Your task to perform on an android device: turn off notifications settings in the gmail app Image 0: 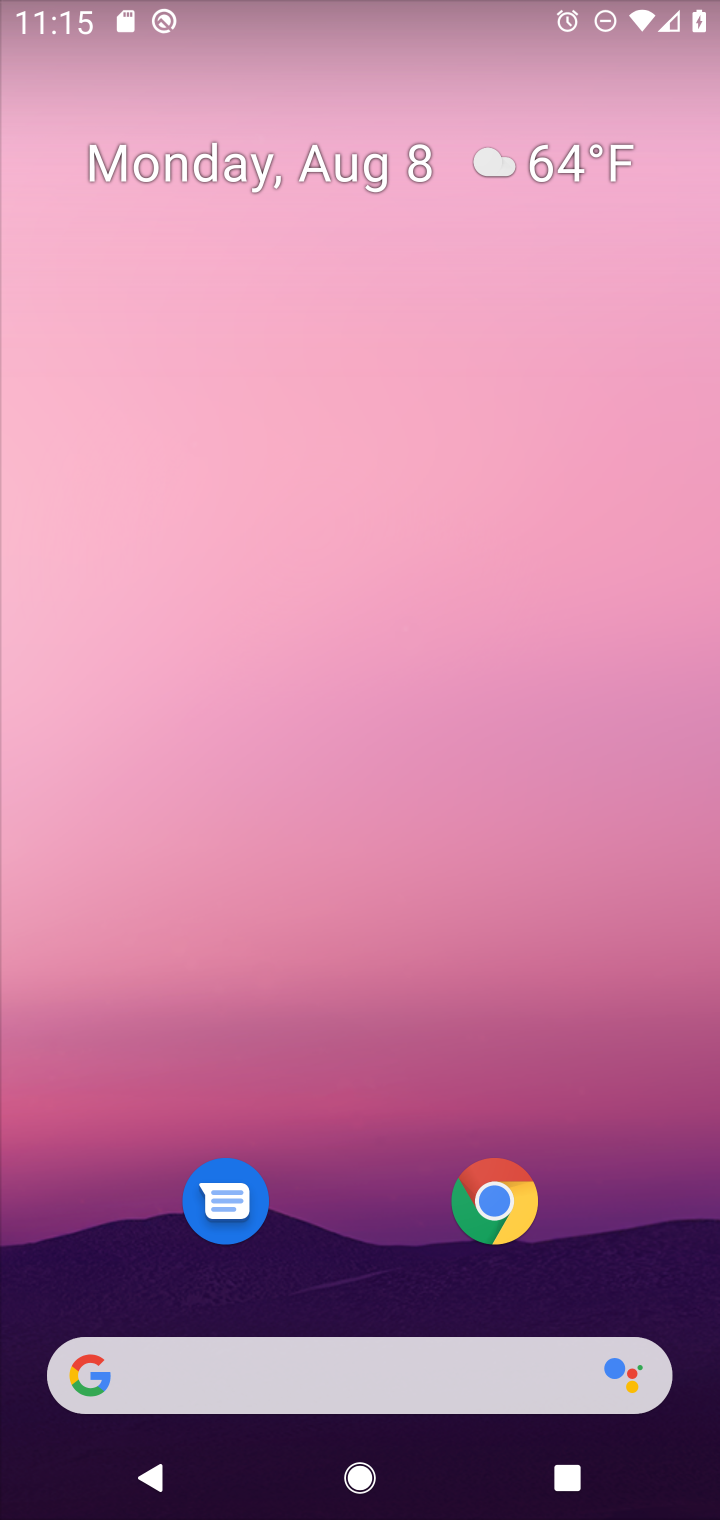
Step 0: press home button
Your task to perform on an android device: turn off notifications settings in the gmail app Image 1: 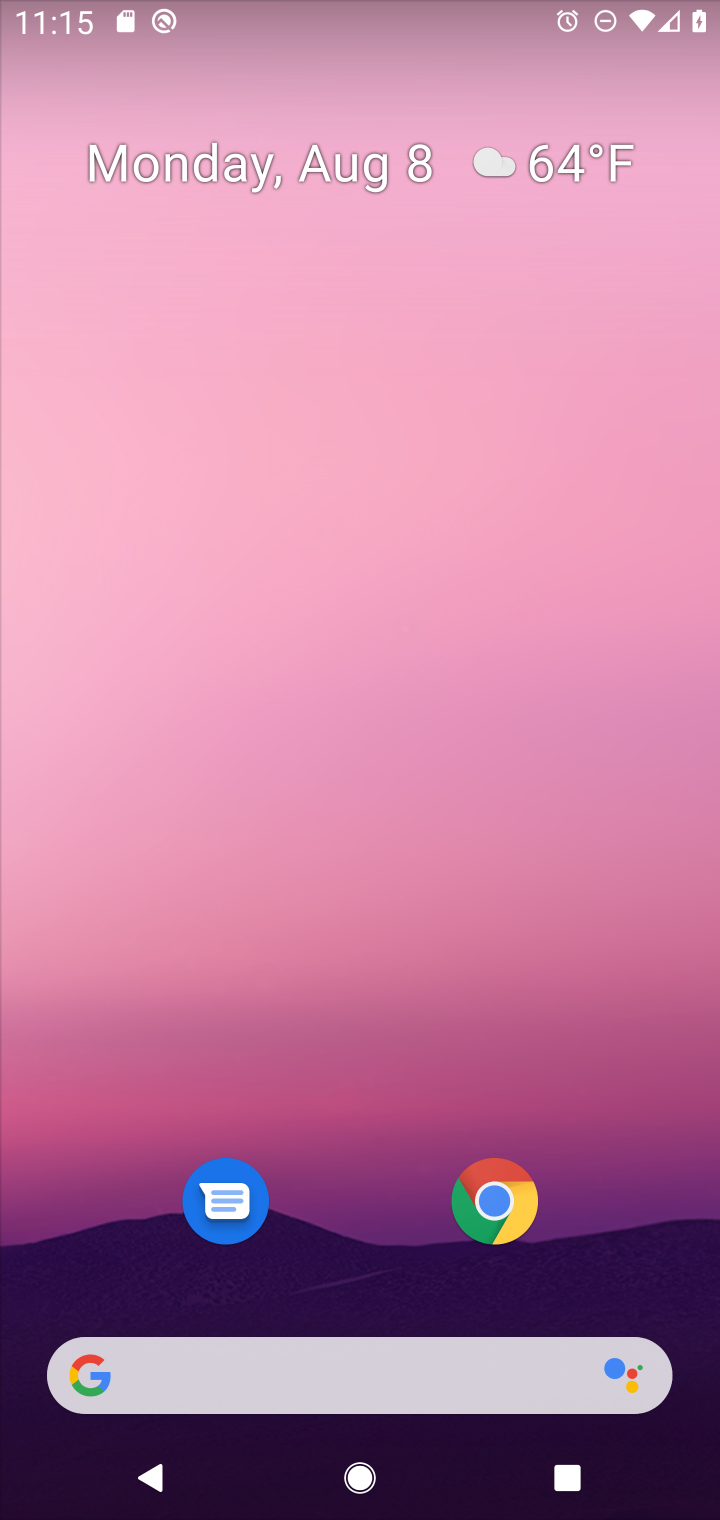
Step 1: drag from (601, 1212) to (598, 235)
Your task to perform on an android device: turn off notifications settings in the gmail app Image 2: 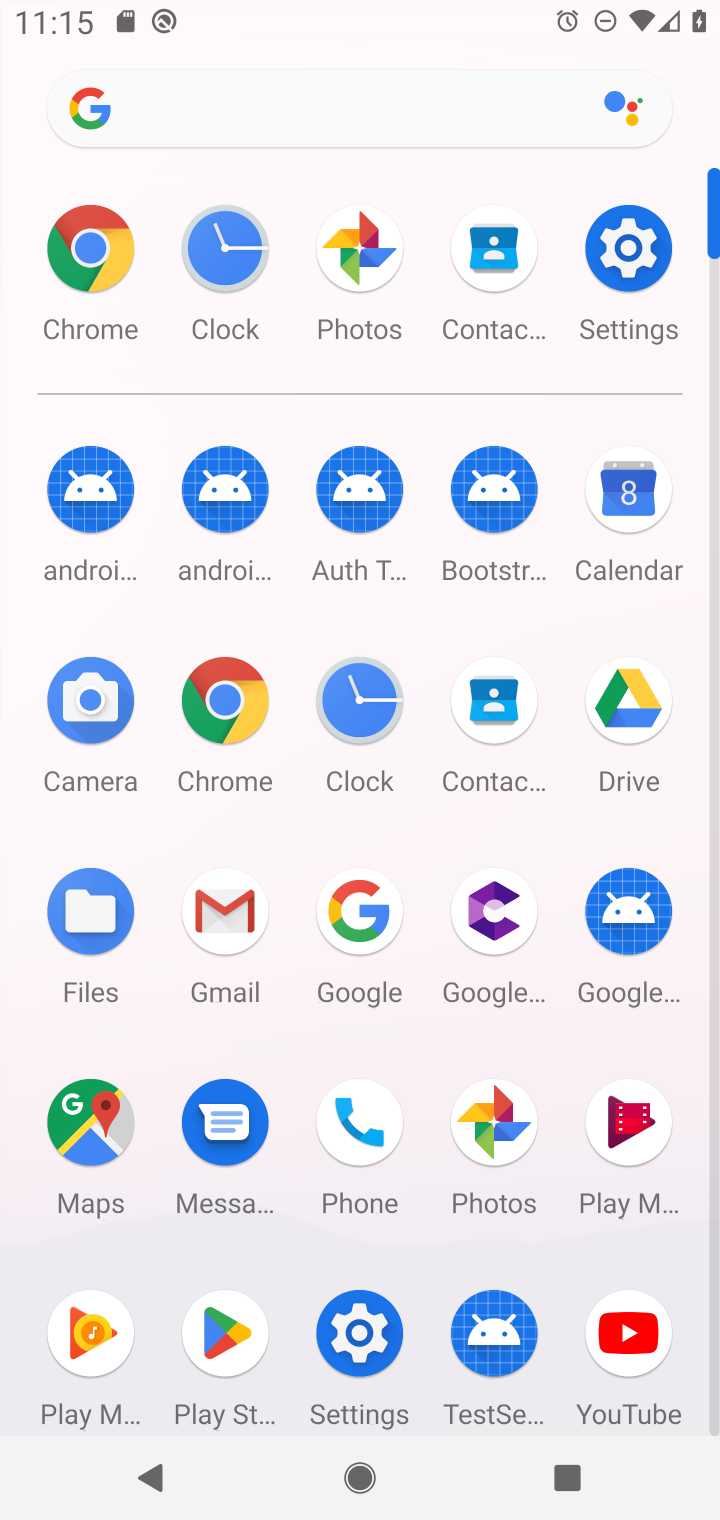
Step 2: click (230, 920)
Your task to perform on an android device: turn off notifications settings in the gmail app Image 3: 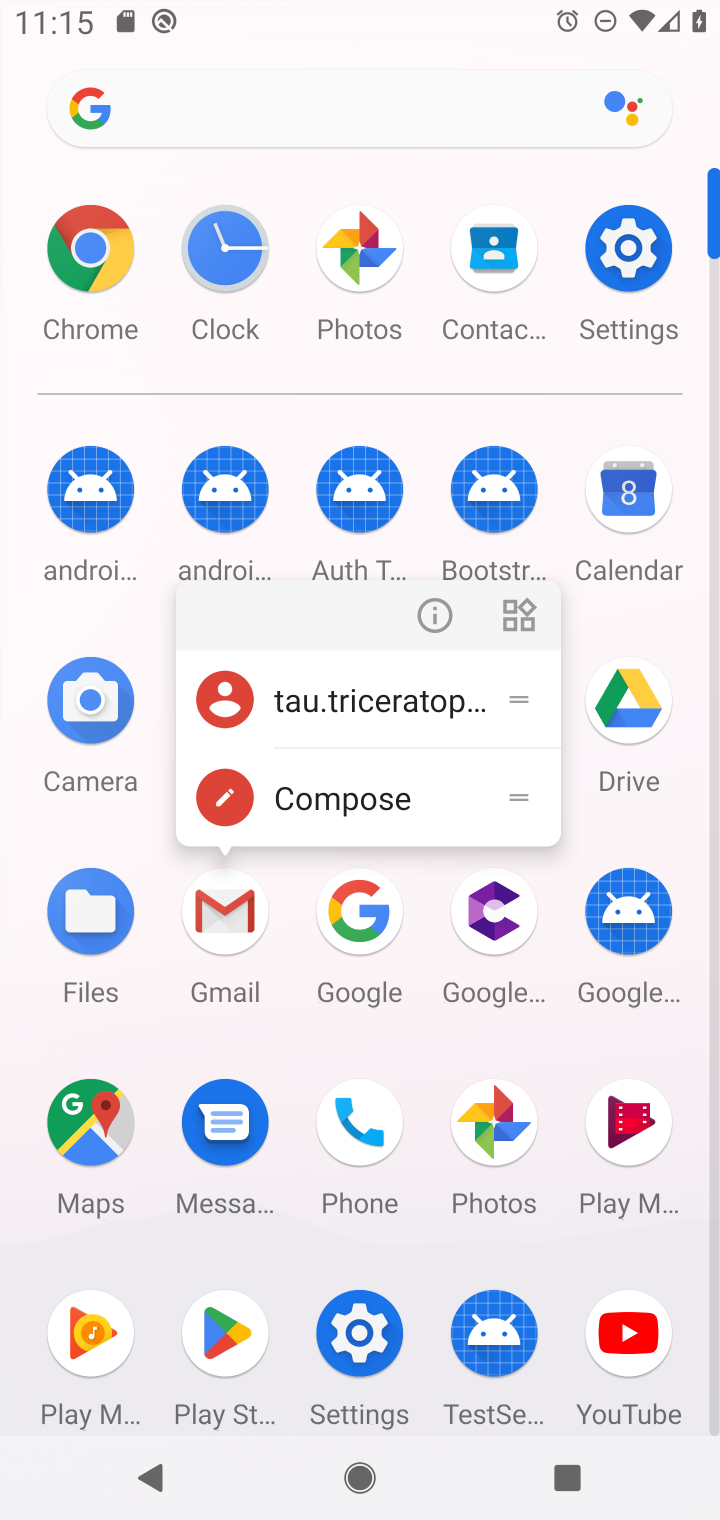
Step 3: click (208, 910)
Your task to perform on an android device: turn off notifications settings in the gmail app Image 4: 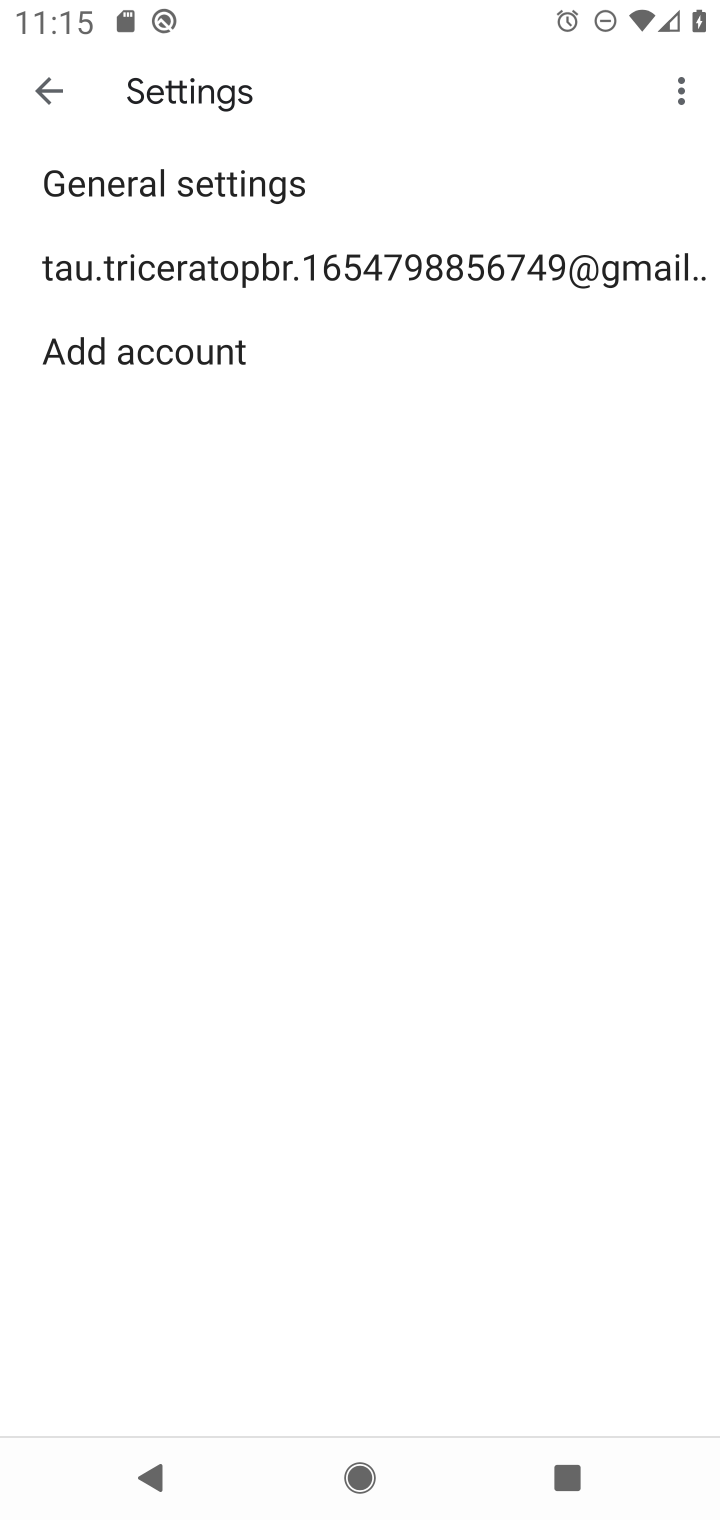
Step 4: click (367, 266)
Your task to perform on an android device: turn off notifications settings in the gmail app Image 5: 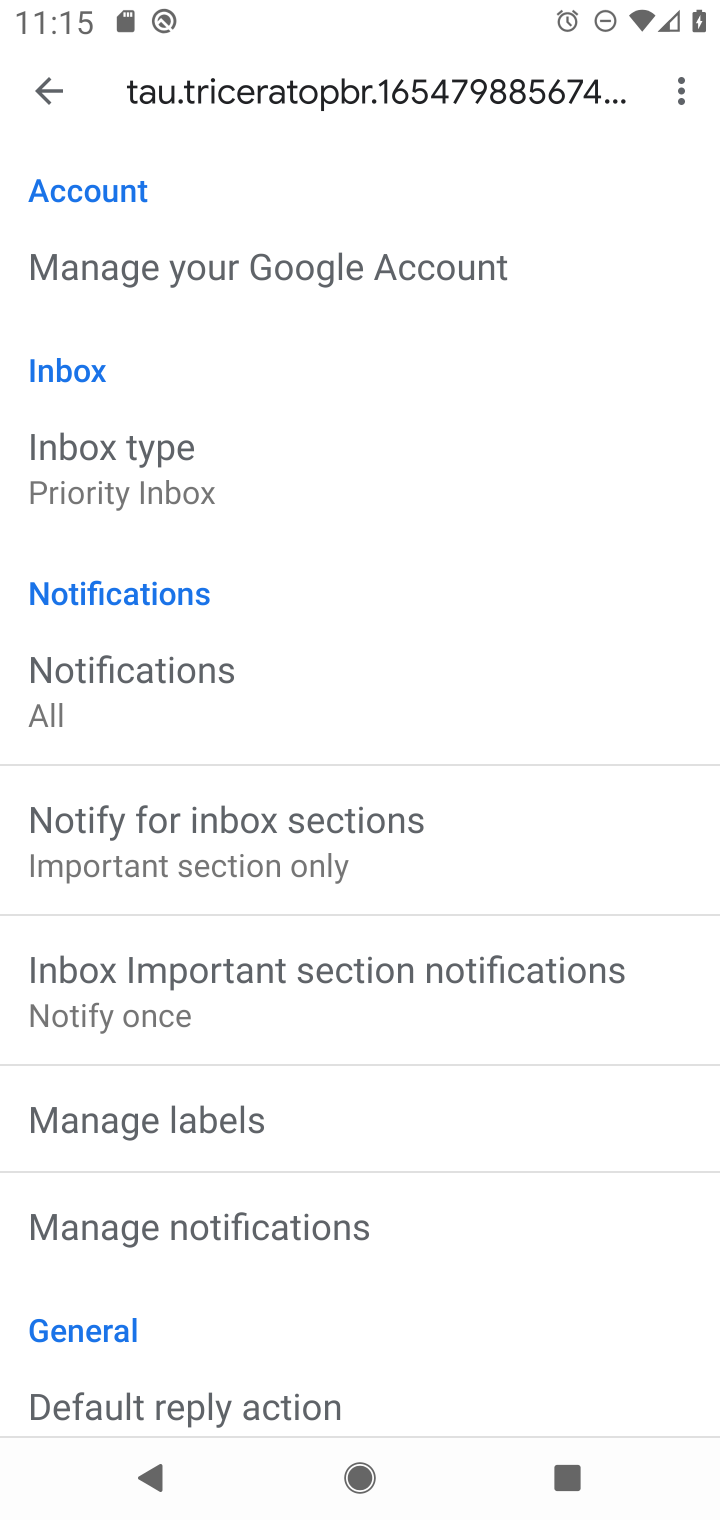
Step 5: drag from (614, 787) to (608, 522)
Your task to perform on an android device: turn off notifications settings in the gmail app Image 6: 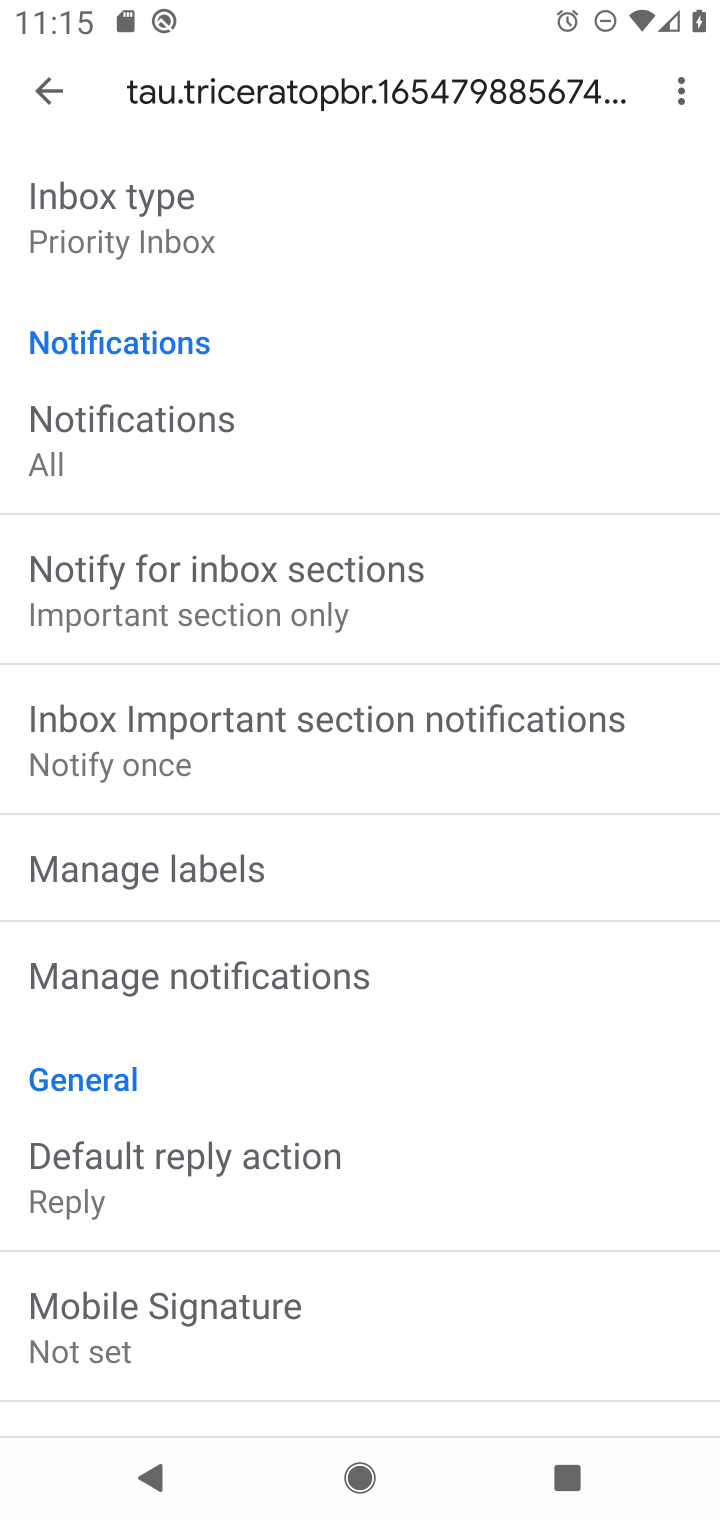
Step 6: drag from (613, 853) to (615, 473)
Your task to perform on an android device: turn off notifications settings in the gmail app Image 7: 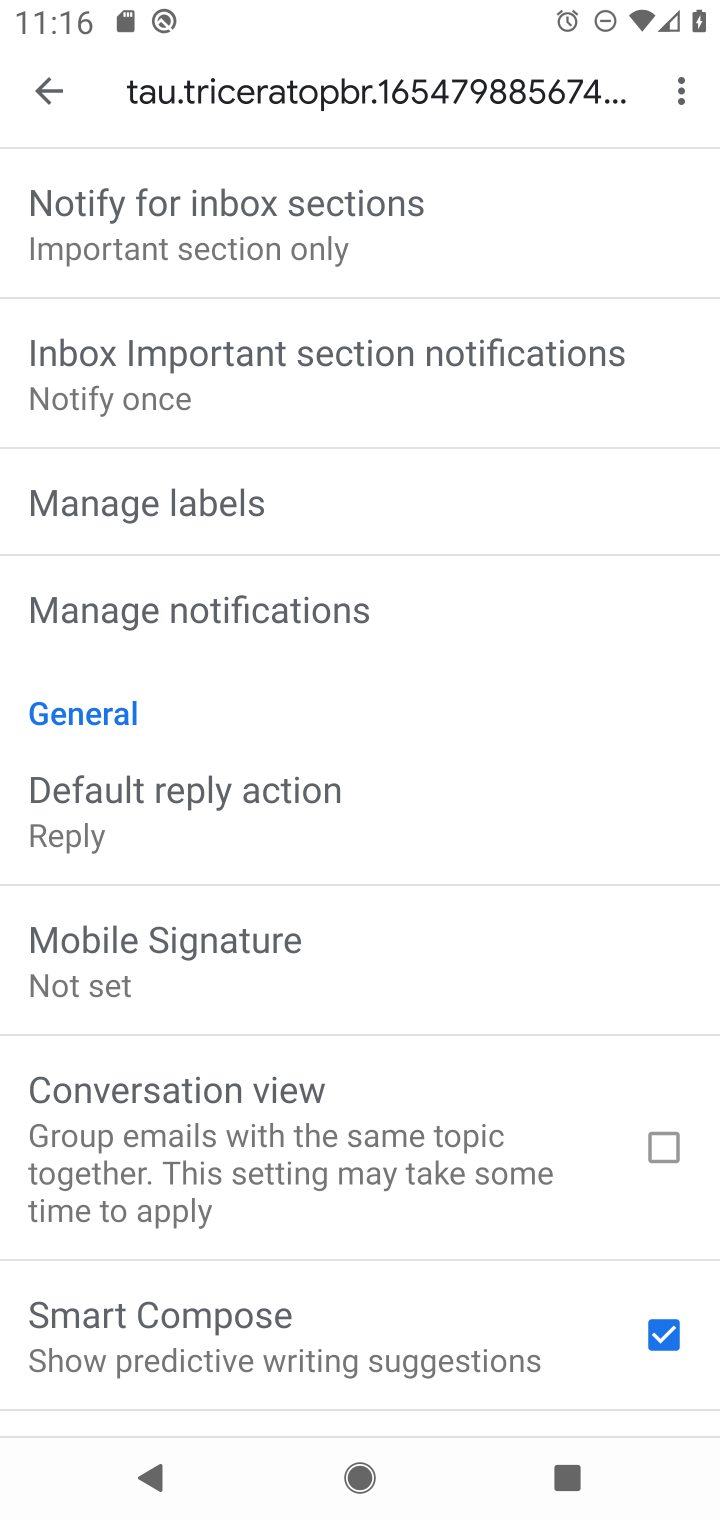
Step 7: click (374, 610)
Your task to perform on an android device: turn off notifications settings in the gmail app Image 8: 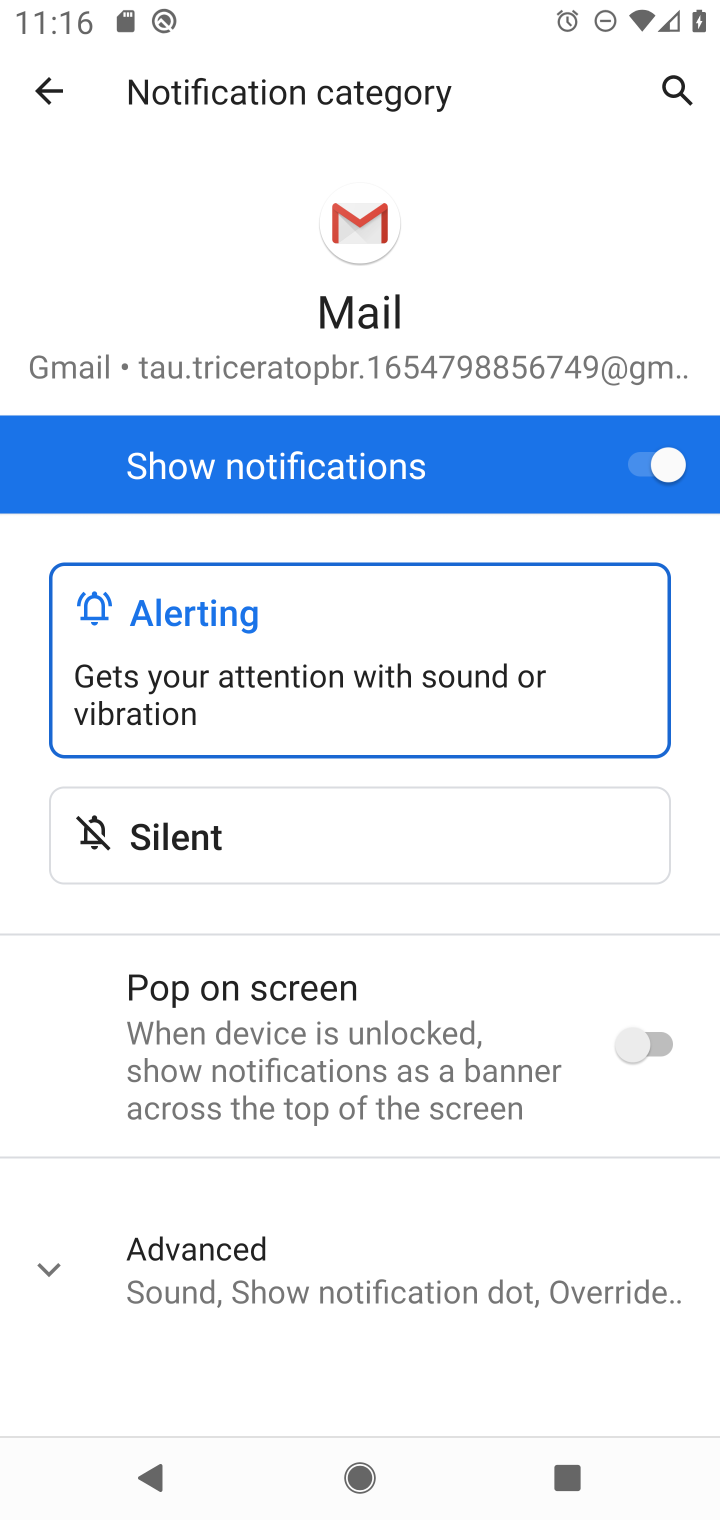
Step 8: click (646, 478)
Your task to perform on an android device: turn off notifications settings in the gmail app Image 9: 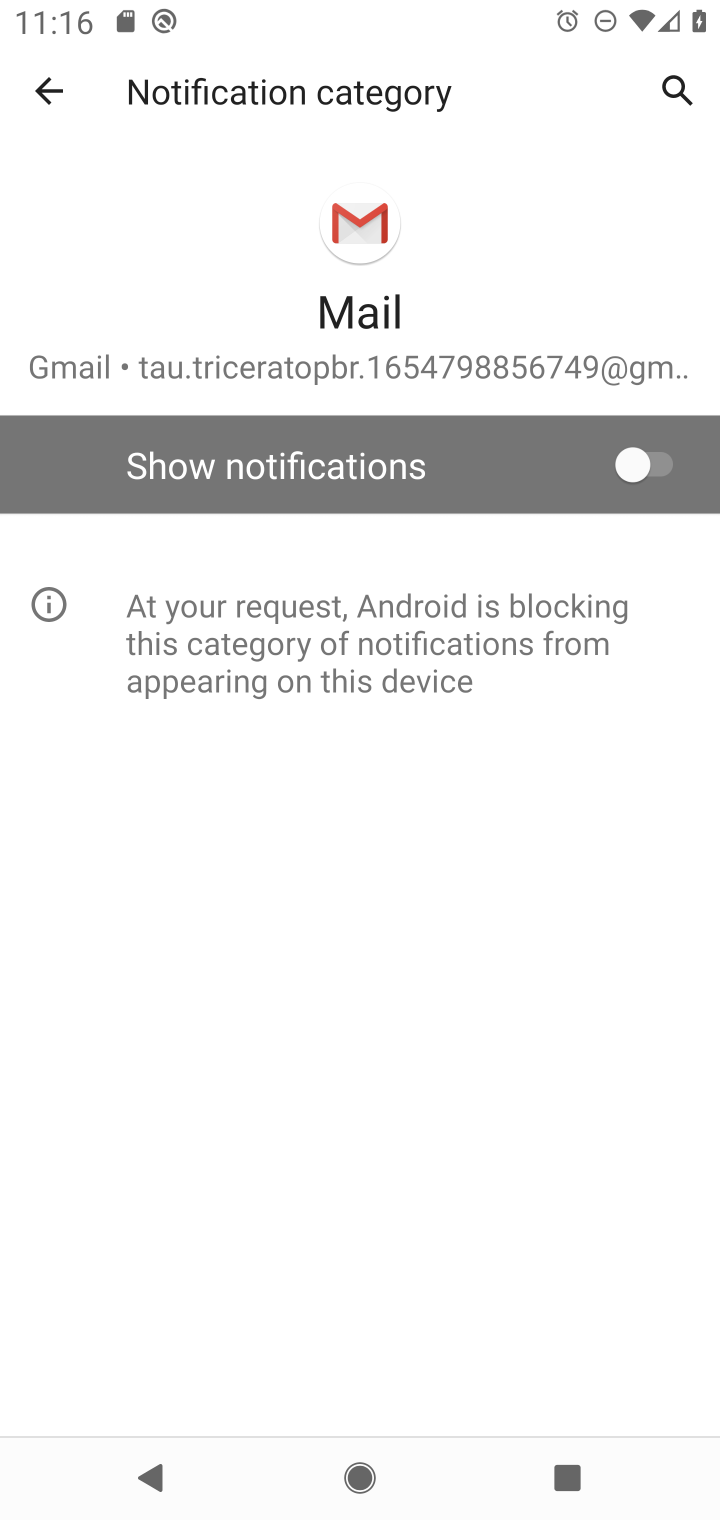
Step 9: task complete